Your task to perform on an android device: Go to notification settings Image 0: 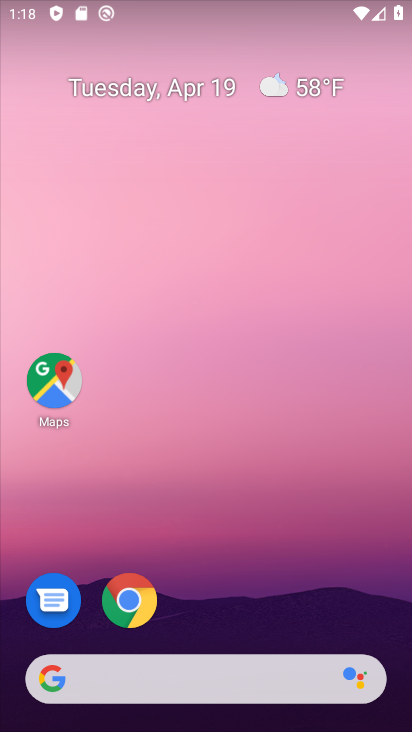
Step 0: click (126, 98)
Your task to perform on an android device: Go to notification settings Image 1: 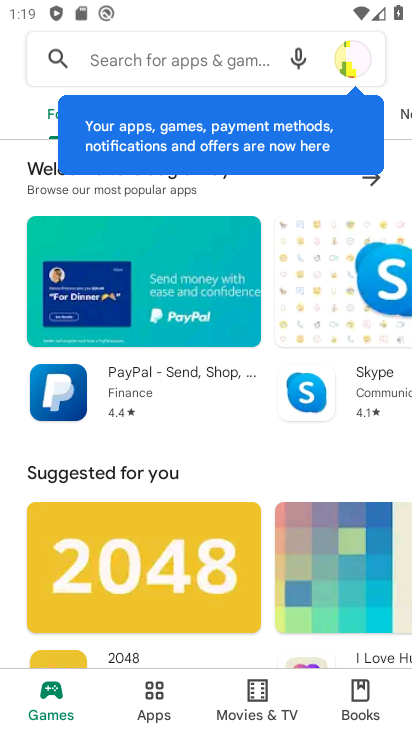
Step 1: press home button
Your task to perform on an android device: Go to notification settings Image 2: 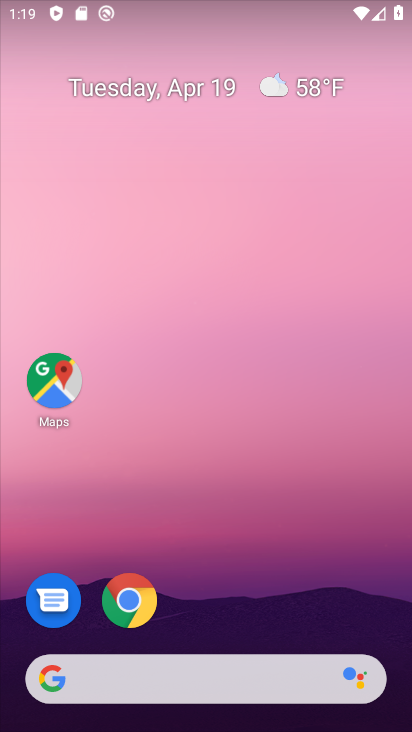
Step 2: drag from (183, 627) to (151, 8)
Your task to perform on an android device: Go to notification settings Image 3: 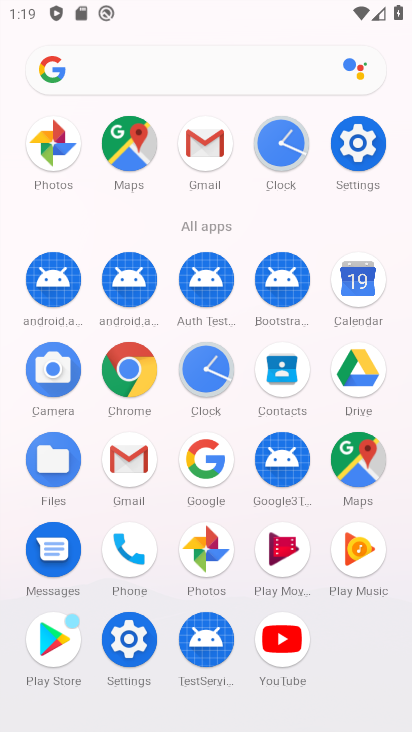
Step 3: click (131, 651)
Your task to perform on an android device: Go to notification settings Image 4: 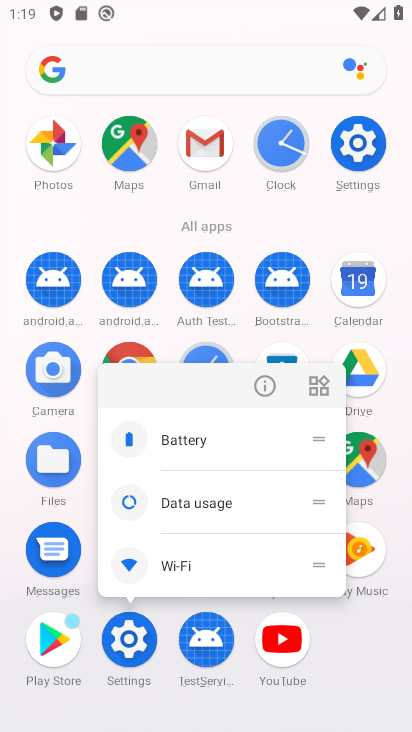
Step 4: click (138, 648)
Your task to perform on an android device: Go to notification settings Image 5: 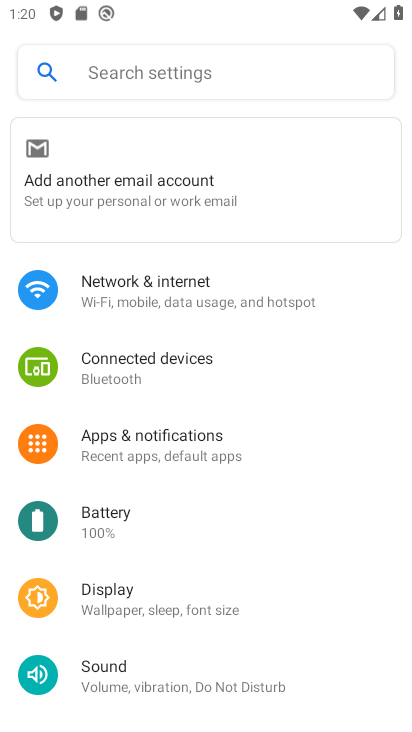
Step 5: click (149, 436)
Your task to perform on an android device: Go to notification settings Image 6: 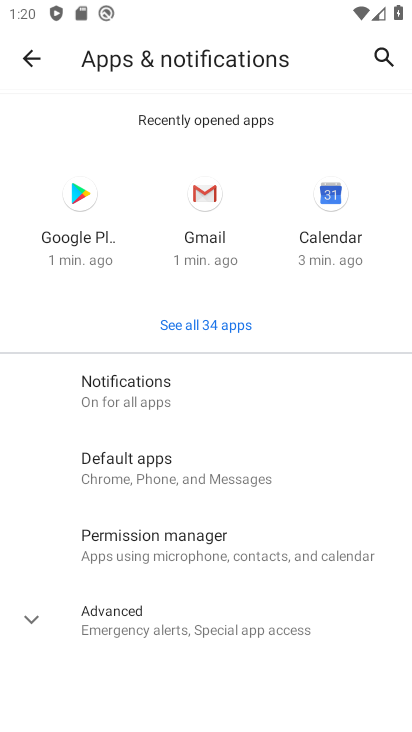
Step 6: task complete